Your task to perform on an android device: Open Youtube and go to "Your channel" Image 0: 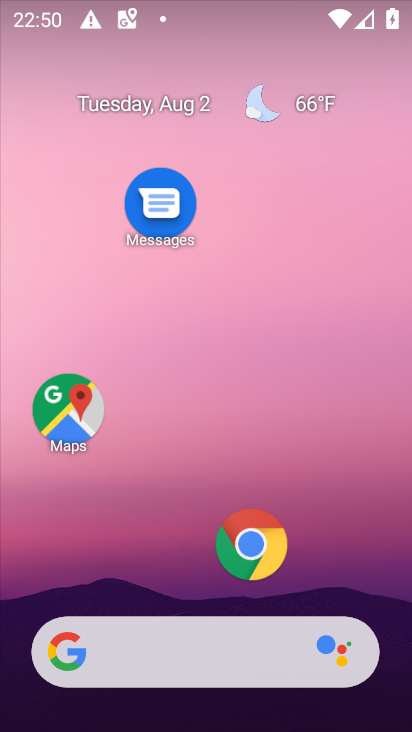
Step 0: drag from (181, 572) to (183, 121)
Your task to perform on an android device: Open Youtube and go to "Your channel" Image 1: 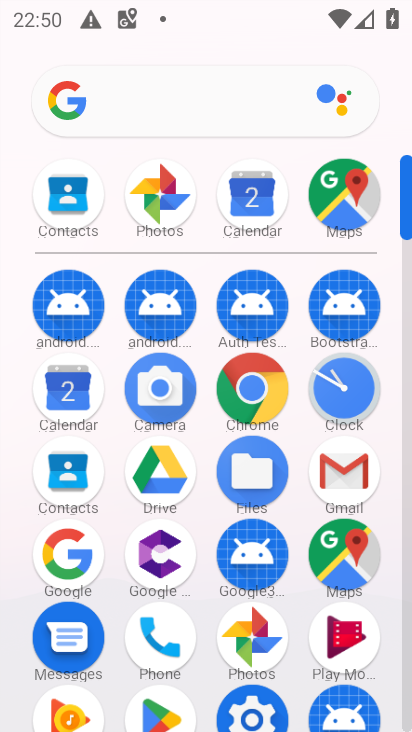
Step 1: drag from (205, 603) to (208, 319)
Your task to perform on an android device: Open Youtube and go to "Your channel" Image 2: 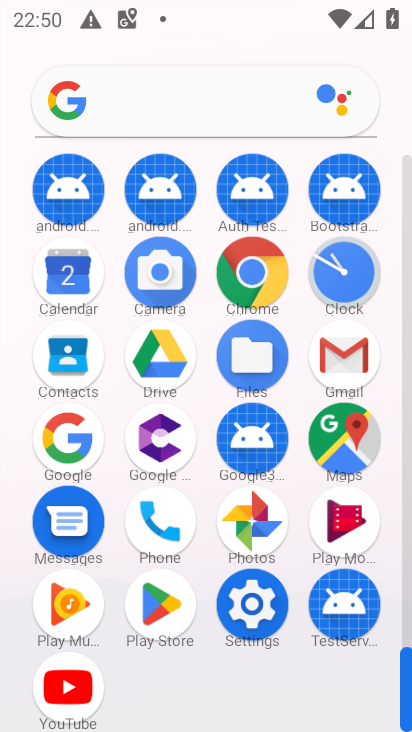
Step 2: click (62, 671)
Your task to perform on an android device: Open Youtube and go to "Your channel" Image 3: 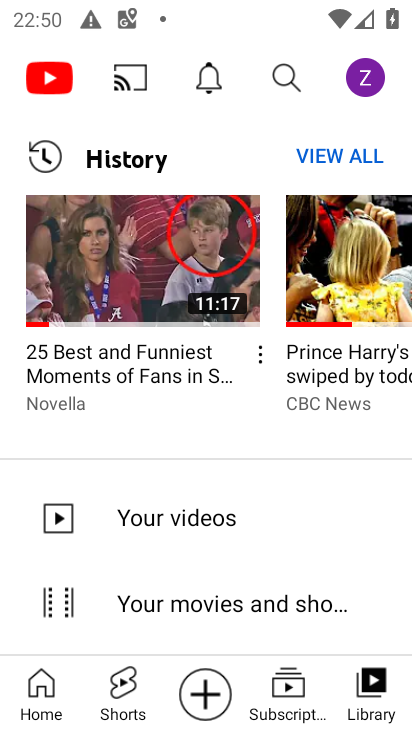
Step 3: click (360, 97)
Your task to perform on an android device: Open Youtube and go to "Your channel" Image 4: 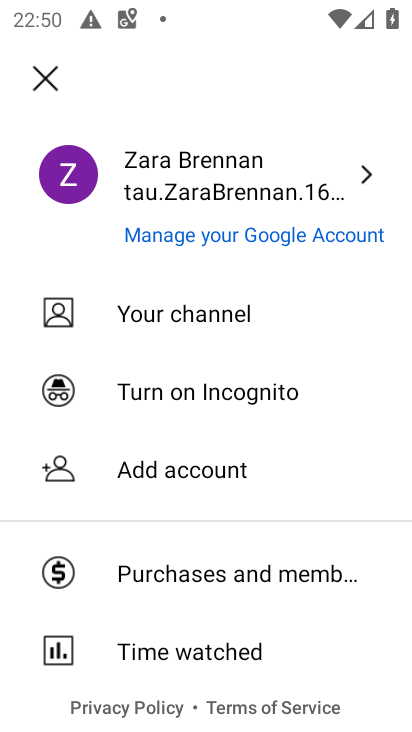
Step 4: click (142, 328)
Your task to perform on an android device: Open Youtube and go to "Your channel" Image 5: 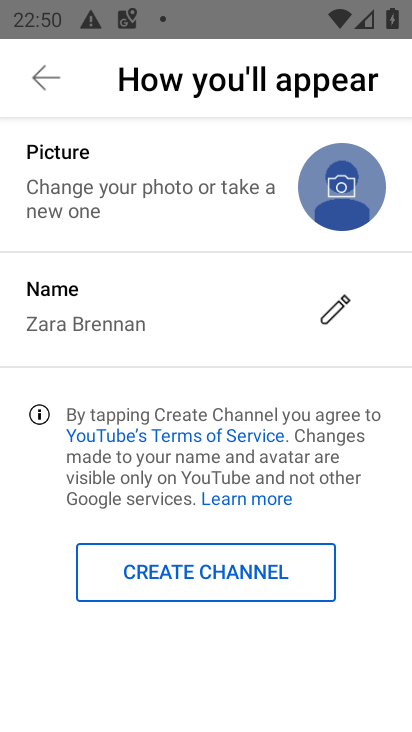
Step 5: task complete